Your task to perform on an android device: toggle translation in the chrome app Image 0: 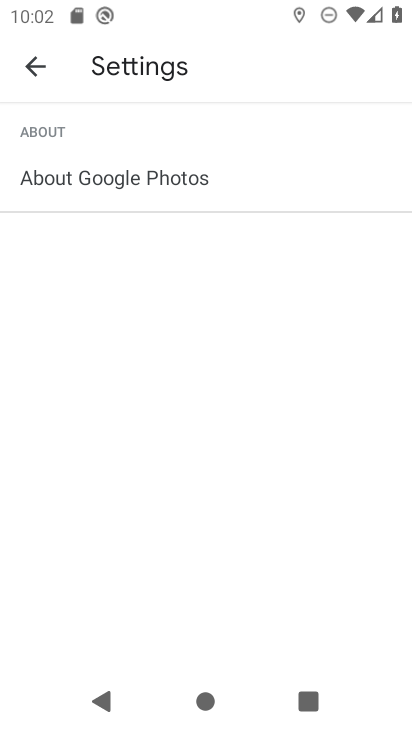
Step 0: press home button
Your task to perform on an android device: toggle translation in the chrome app Image 1: 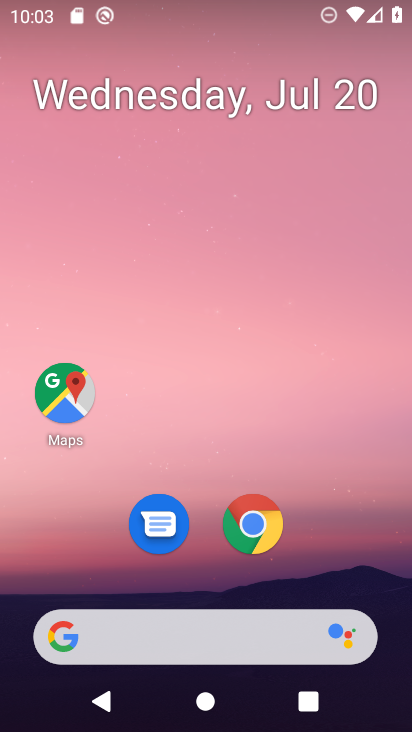
Step 1: click (248, 524)
Your task to perform on an android device: toggle translation in the chrome app Image 2: 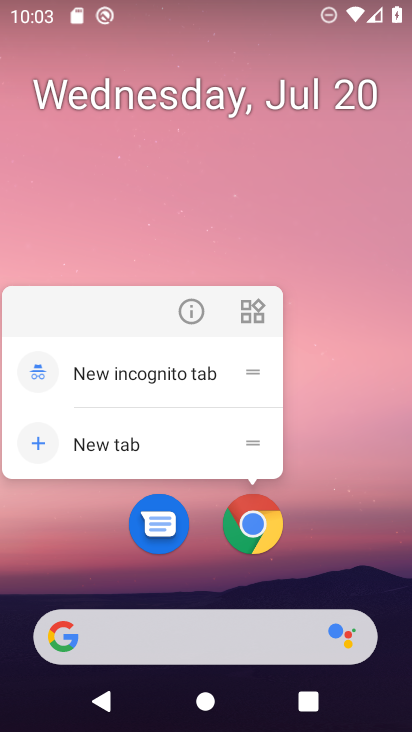
Step 2: click (256, 526)
Your task to perform on an android device: toggle translation in the chrome app Image 3: 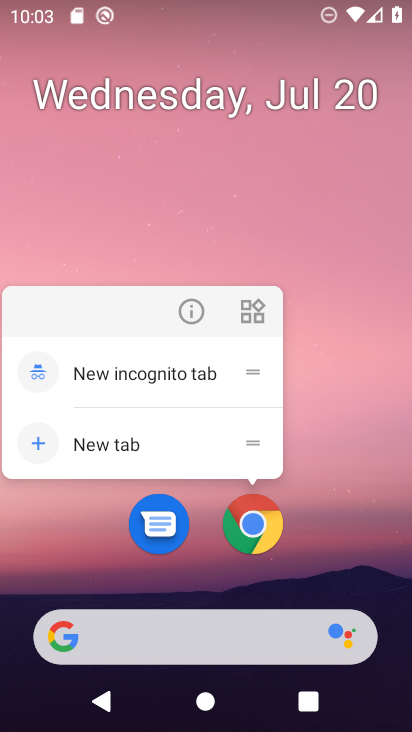
Step 3: click (254, 527)
Your task to perform on an android device: toggle translation in the chrome app Image 4: 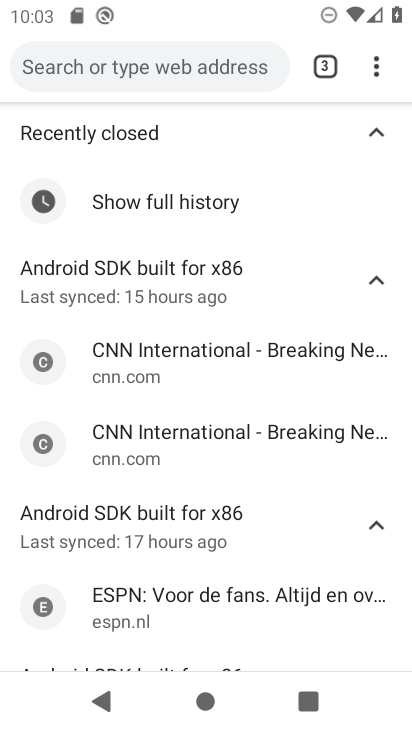
Step 4: drag from (375, 72) to (225, 569)
Your task to perform on an android device: toggle translation in the chrome app Image 5: 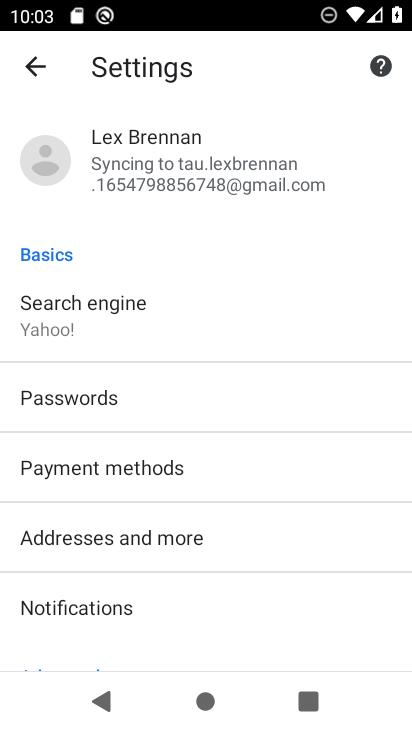
Step 5: drag from (212, 600) to (265, 317)
Your task to perform on an android device: toggle translation in the chrome app Image 6: 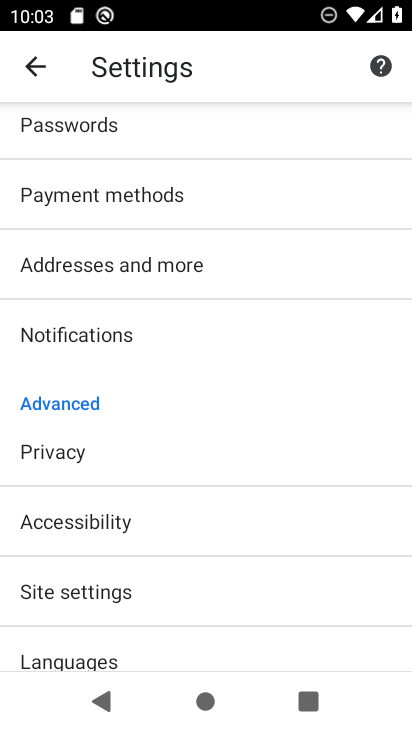
Step 6: click (99, 650)
Your task to perform on an android device: toggle translation in the chrome app Image 7: 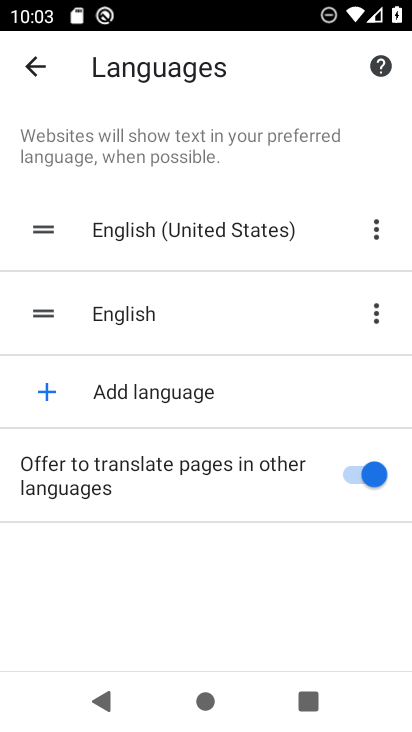
Step 7: click (349, 471)
Your task to perform on an android device: toggle translation in the chrome app Image 8: 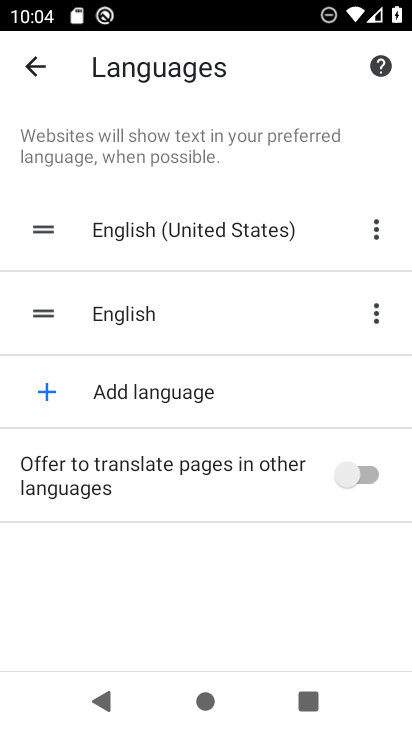
Step 8: task complete